Your task to perform on an android device: see tabs open on other devices in the chrome app Image 0: 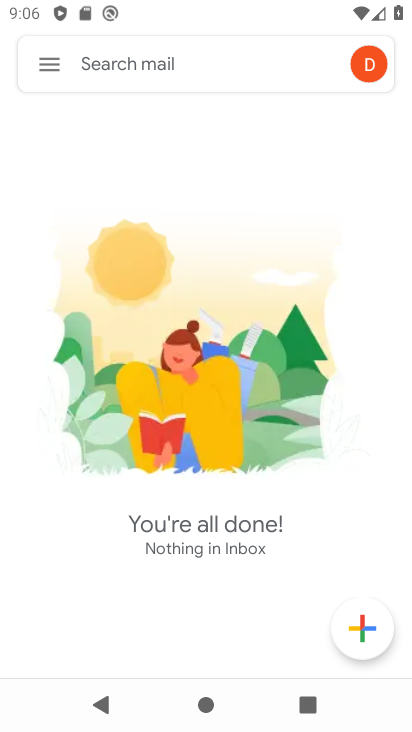
Step 0: press home button
Your task to perform on an android device: see tabs open on other devices in the chrome app Image 1: 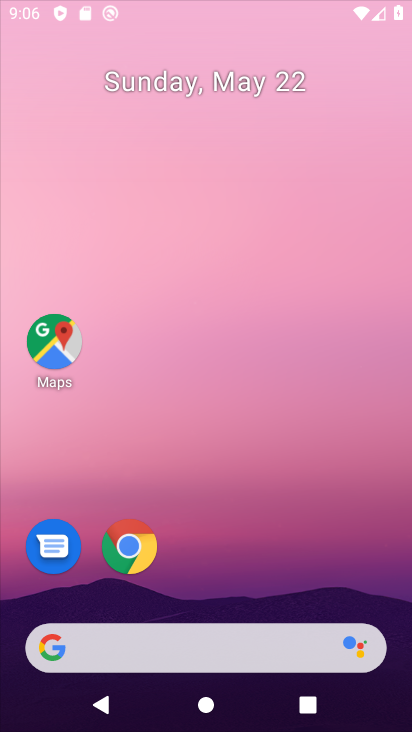
Step 1: click (246, 230)
Your task to perform on an android device: see tabs open on other devices in the chrome app Image 2: 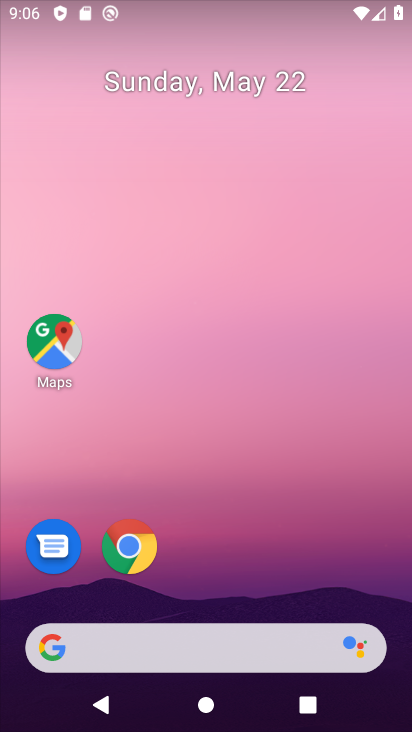
Step 2: drag from (200, 595) to (224, 119)
Your task to perform on an android device: see tabs open on other devices in the chrome app Image 3: 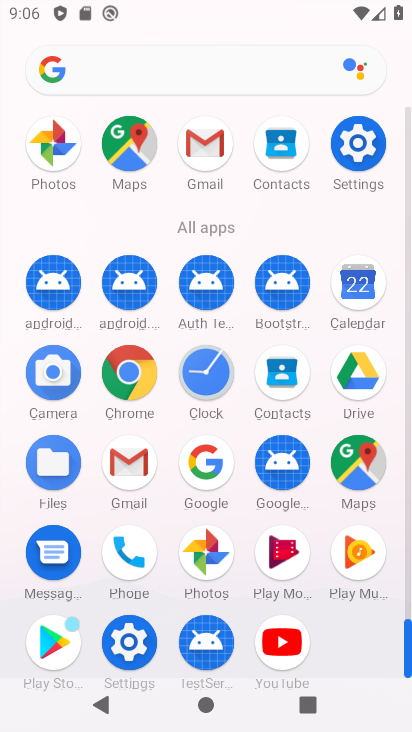
Step 3: click (133, 376)
Your task to perform on an android device: see tabs open on other devices in the chrome app Image 4: 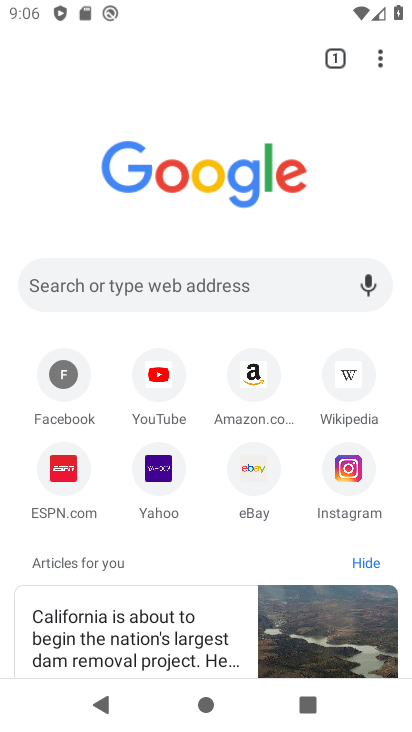
Step 4: drag from (212, 562) to (238, 195)
Your task to perform on an android device: see tabs open on other devices in the chrome app Image 5: 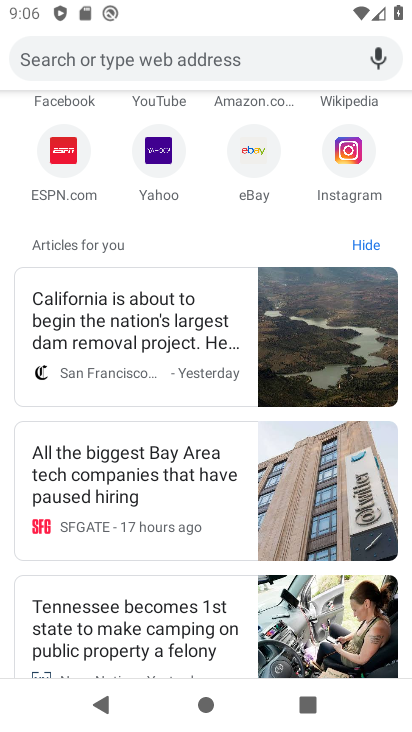
Step 5: drag from (219, 187) to (316, 729)
Your task to perform on an android device: see tabs open on other devices in the chrome app Image 6: 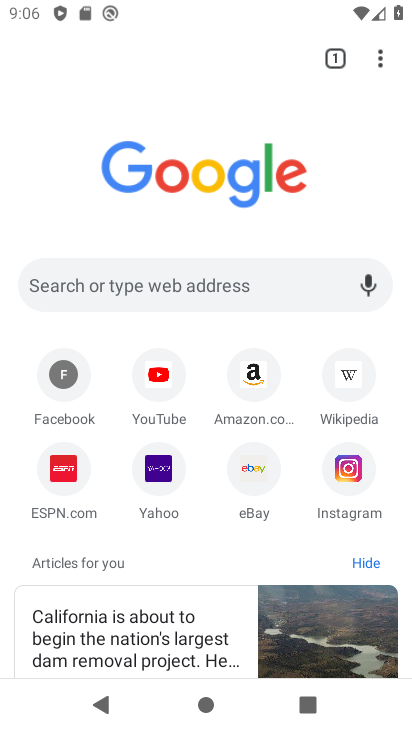
Step 6: click (382, 59)
Your task to perform on an android device: see tabs open on other devices in the chrome app Image 7: 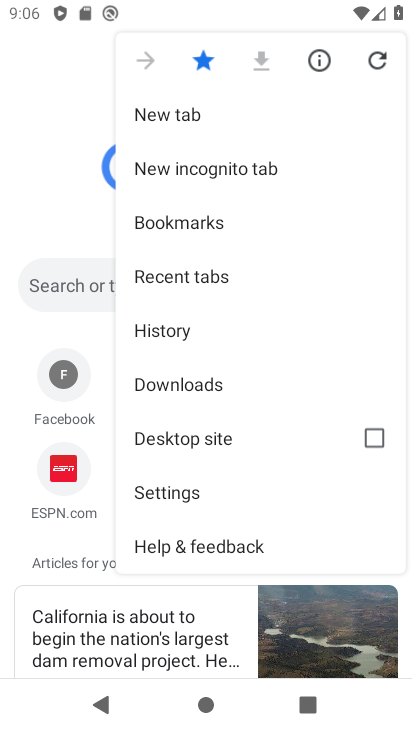
Step 7: drag from (250, 493) to (300, 149)
Your task to perform on an android device: see tabs open on other devices in the chrome app Image 8: 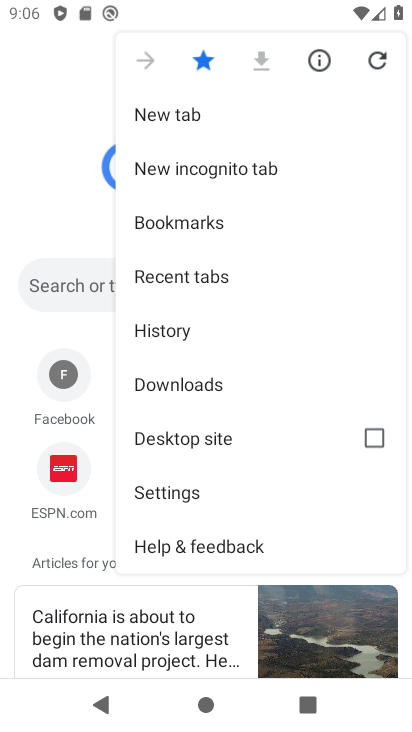
Step 8: click (208, 275)
Your task to perform on an android device: see tabs open on other devices in the chrome app Image 9: 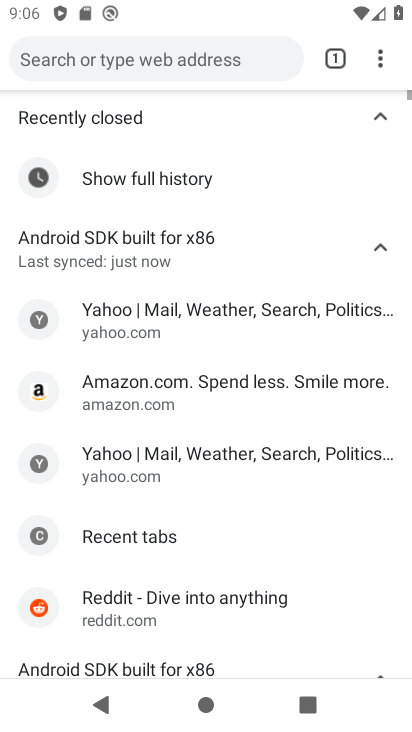
Step 9: task complete